Your task to perform on an android device: search for starred emails in the gmail app Image 0: 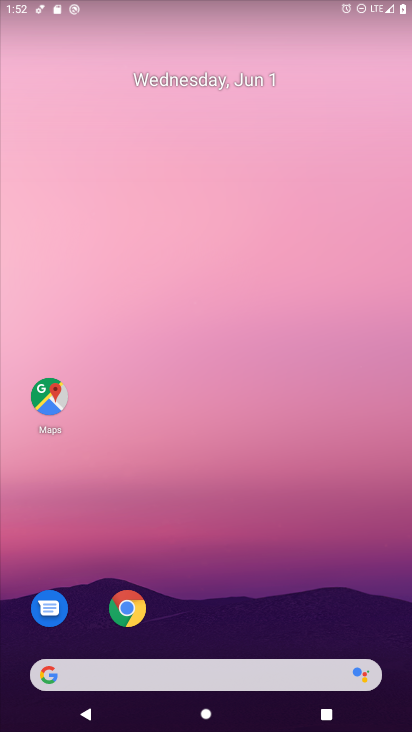
Step 0: drag from (170, 628) to (191, 83)
Your task to perform on an android device: search for starred emails in the gmail app Image 1: 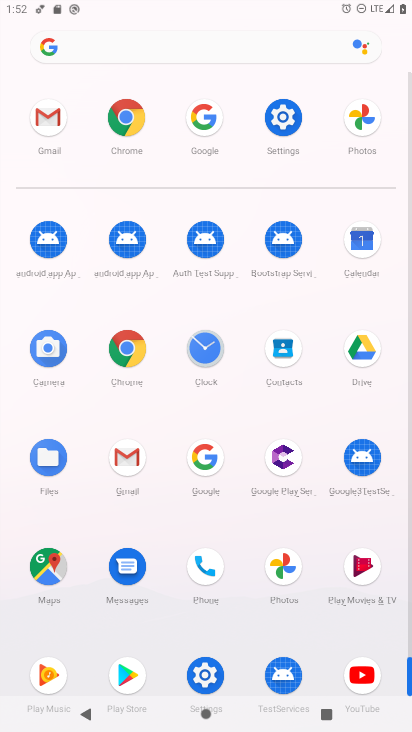
Step 1: click (44, 118)
Your task to perform on an android device: search for starred emails in the gmail app Image 2: 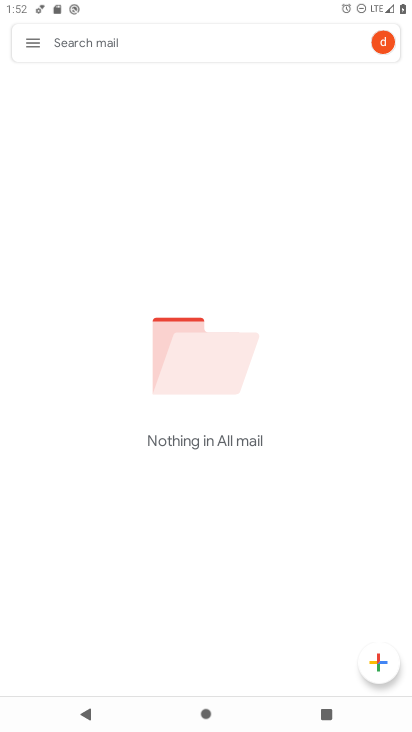
Step 2: click (31, 38)
Your task to perform on an android device: search for starred emails in the gmail app Image 3: 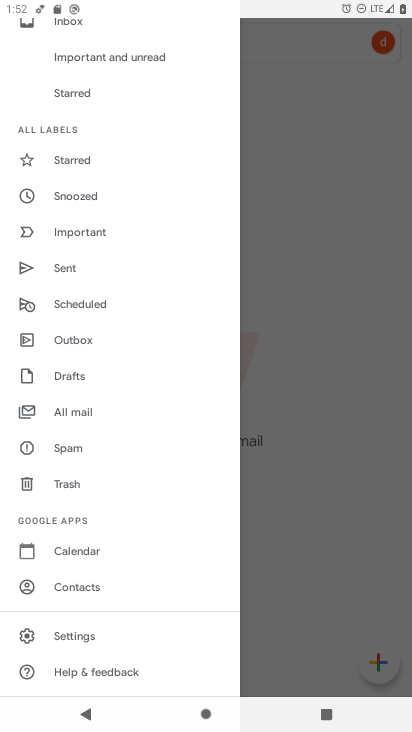
Step 3: click (85, 162)
Your task to perform on an android device: search for starred emails in the gmail app Image 4: 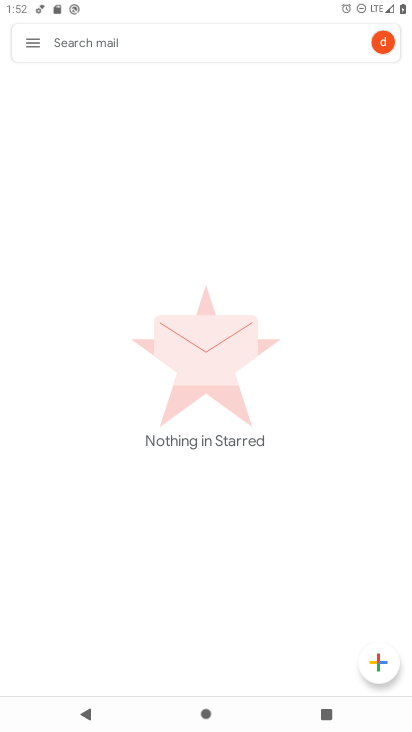
Step 4: task complete